Your task to perform on an android device: Open Chrome and go to settings Image 0: 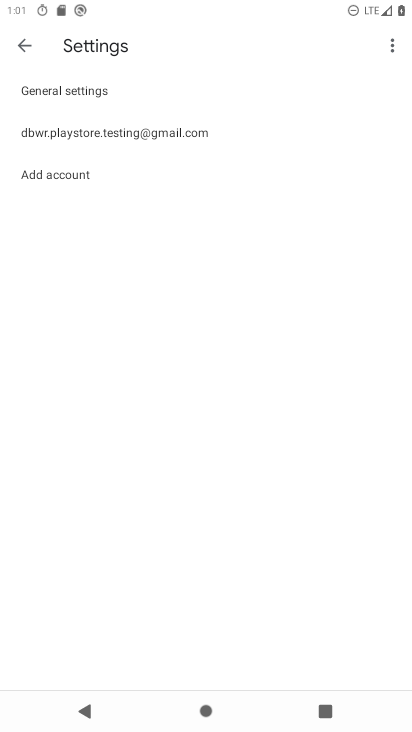
Step 0: press home button
Your task to perform on an android device: Open Chrome and go to settings Image 1: 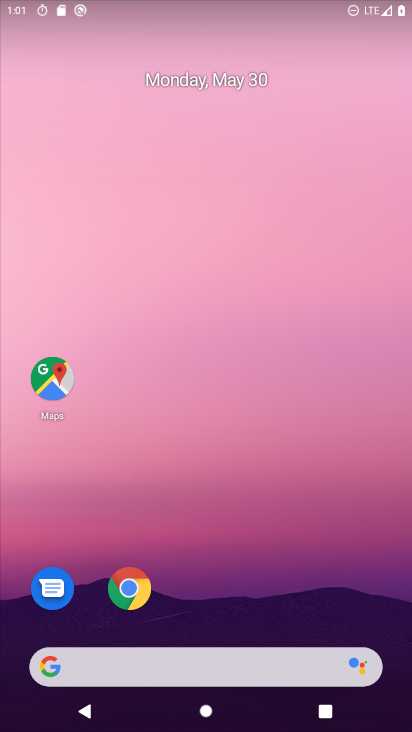
Step 1: drag from (272, 576) to (302, 210)
Your task to perform on an android device: Open Chrome and go to settings Image 2: 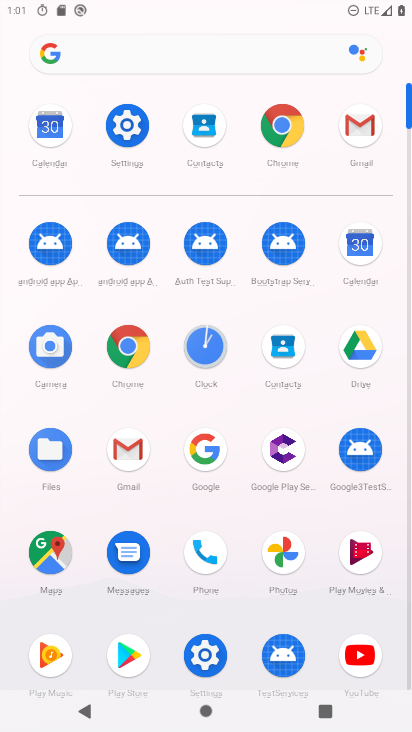
Step 2: click (123, 361)
Your task to perform on an android device: Open Chrome and go to settings Image 3: 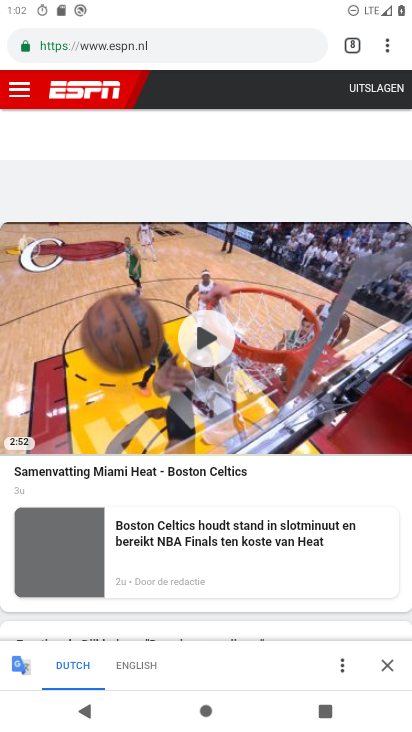
Step 3: click (386, 53)
Your task to perform on an android device: Open Chrome and go to settings Image 4: 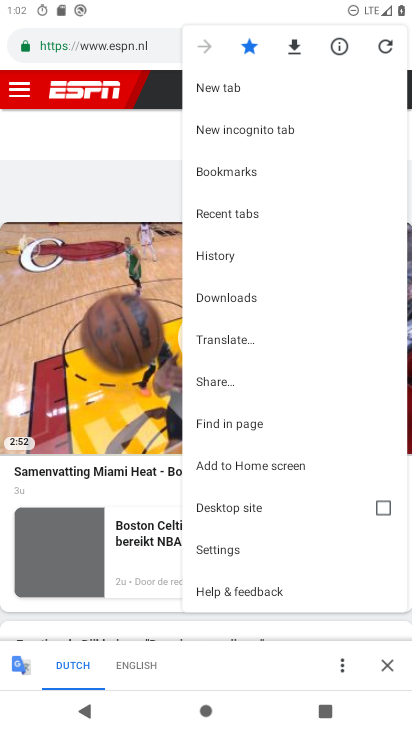
Step 4: click (269, 558)
Your task to perform on an android device: Open Chrome and go to settings Image 5: 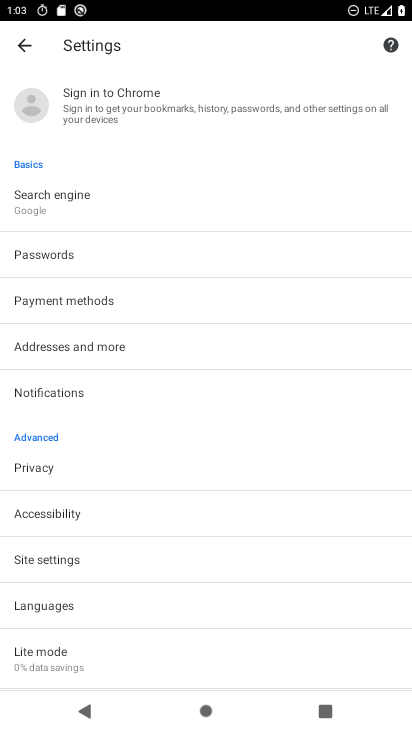
Step 5: task complete